Your task to perform on an android device: Open accessibility settings Image 0: 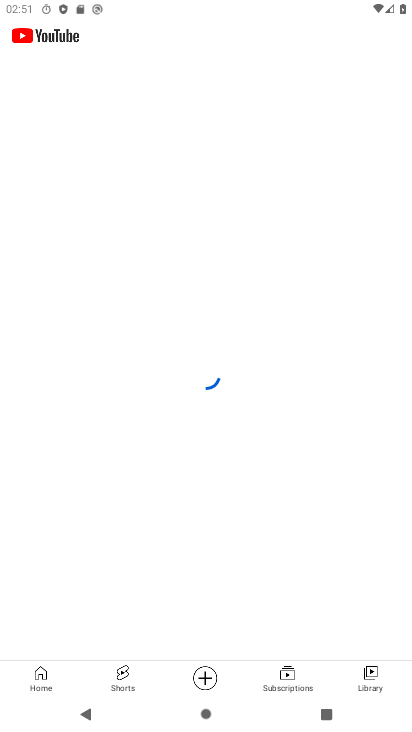
Step 0: press home button
Your task to perform on an android device: Open accessibility settings Image 1: 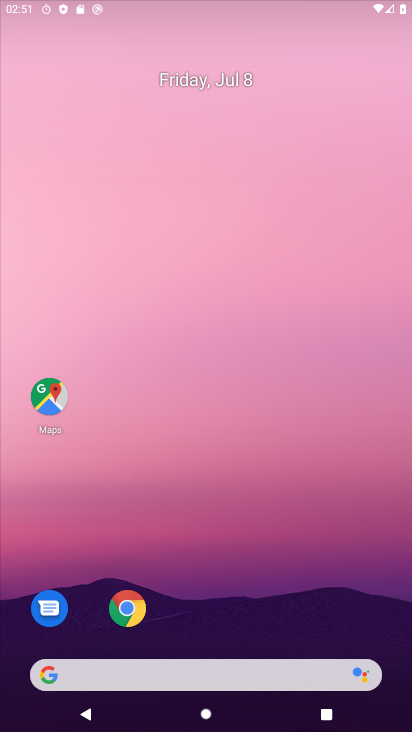
Step 1: drag from (261, 639) to (291, 90)
Your task to perform on an android device: Open accessibility settings Image 2: 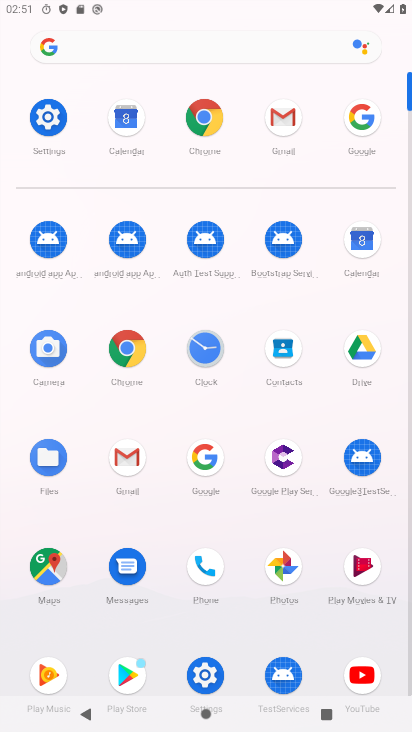
Step 2: click (43, 116)
Your task to perform on an android device: Open accessibility settings Image 3: 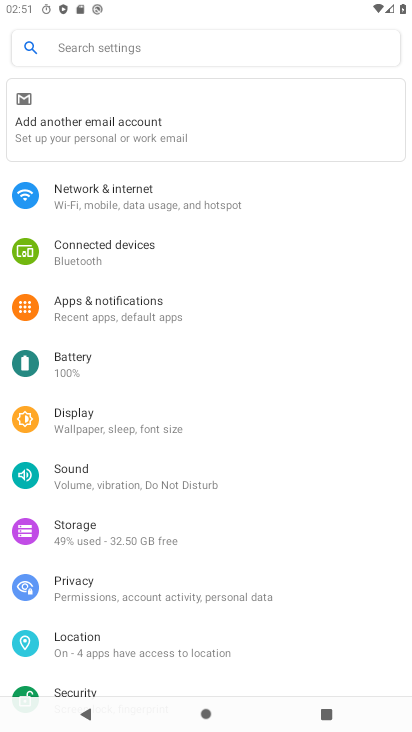
Step 3: drag from (173, 648) to (220, 221)
Your task to perform on an android device: Open accessibility settings Image 4: 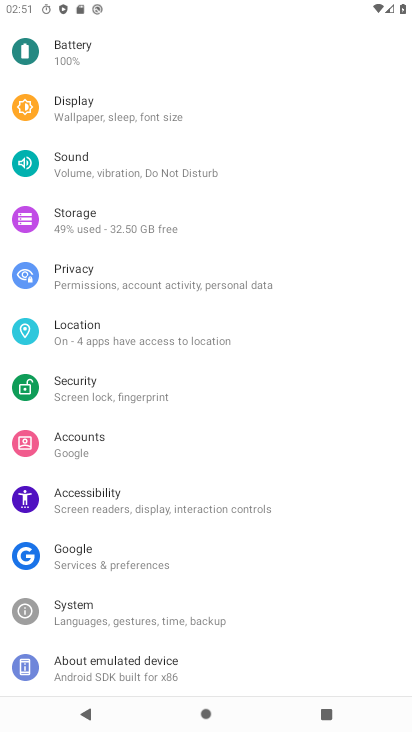
Step 4: click (125, 500)
Your task to perform on an android device: Open accessibility settings Image 5: 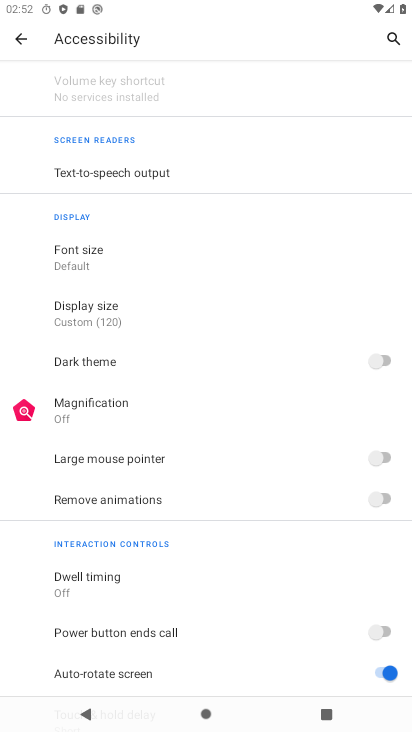
Step 5: task complete